Your task to perform on an android device: Show me the alarms in the clock app Image 0: 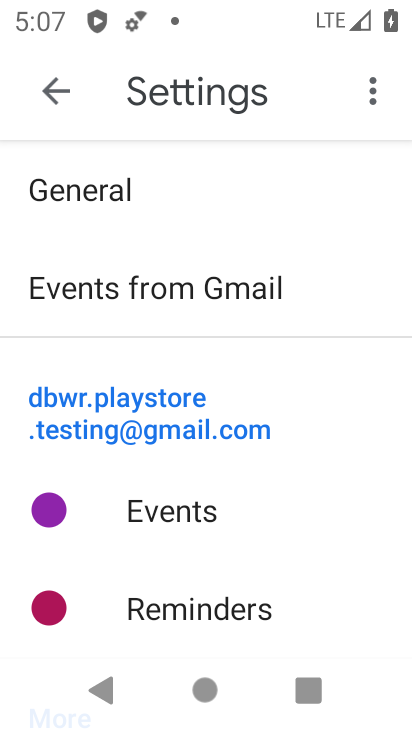
Step 0: press back button
Your task to perform on an android device: Show me the alarms in the clock app Image 1: 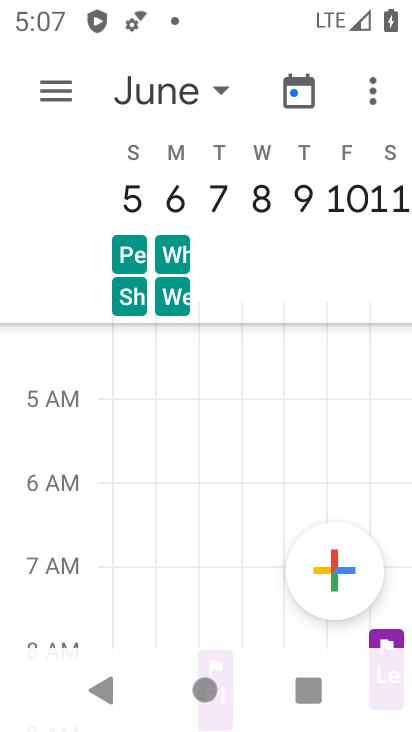
Step 1: press home button
Your task to perform on an android device: Show me the alarms in the clock app Image 2: 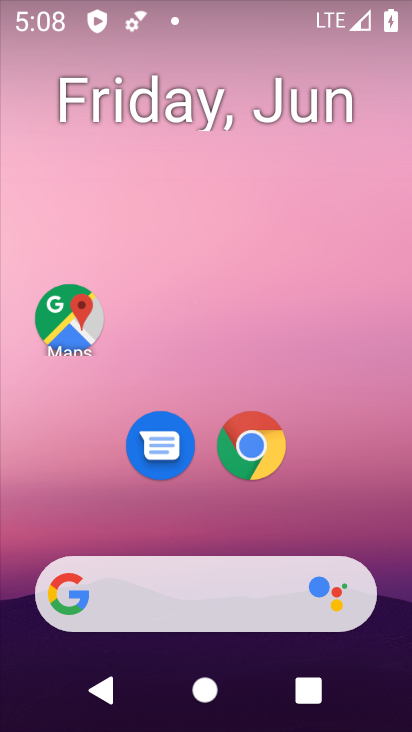
Step 2: drag from (388, 593) to (322, 66)
Your task to perform on an android device: Show me the alarms in the clock app Image 3: 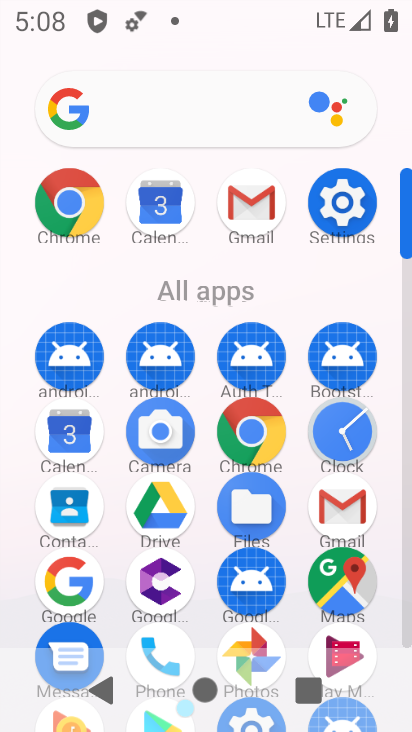
Step 3: click (343, 424)
Your task to perform on an android device: Show me the alarms in the clock app Image 4: 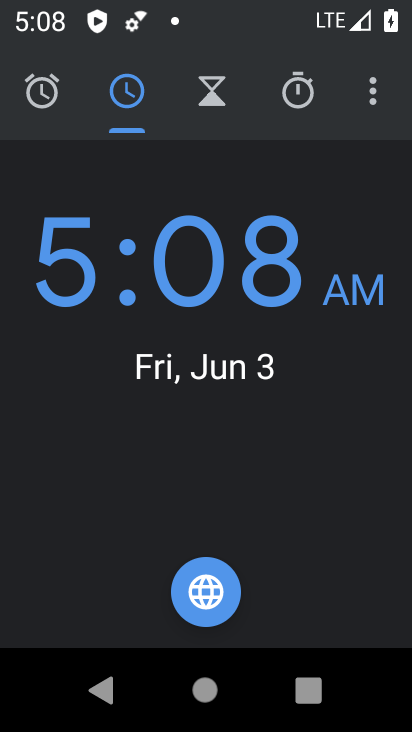
Step 4: click (55, 87)
Your task to perform on an android device: Show me the alarms in the clock app Image 5: 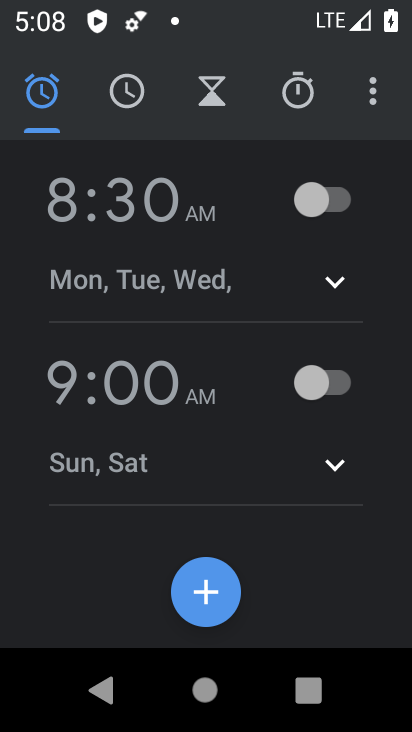
Step 5: task complete